Your task to perform on an android device: toggle airplane mode Image 0: 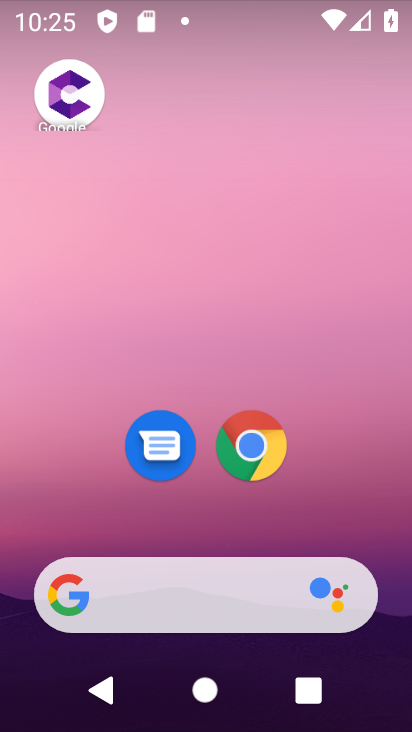
Step 0: drag from (210, 549) to (236, 222)
Your task to perform on an android device: toggle airplane mode Image 1: 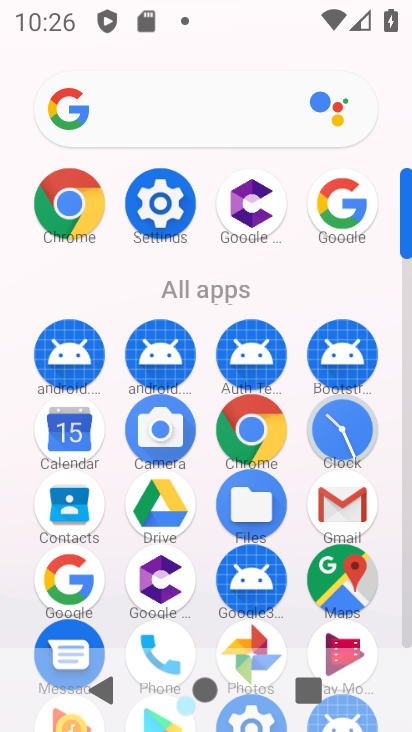
Step 1: click (162, 201)
Your task to perform on an android device: toggle airplane mode Image 2: 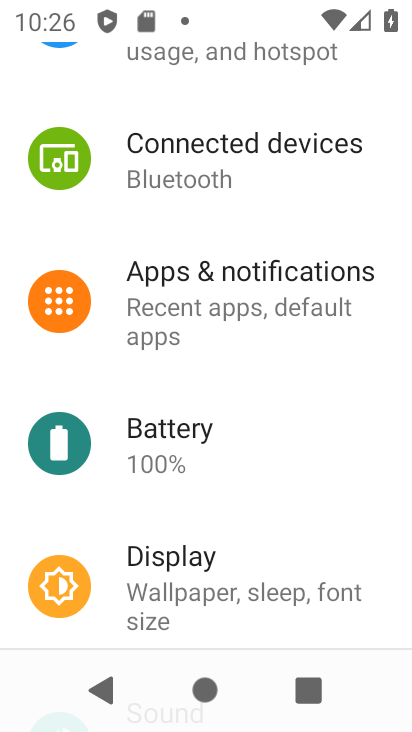
Step 2: drag from (240, 225) to (224, 565)
Your task to perform on an android device: toggle airplane mode Image 3: 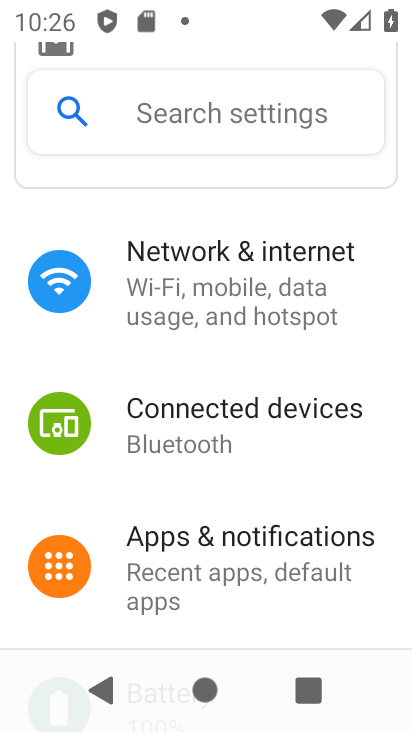
Step 3: click (251, 299)
Your task to perform on an android device: toggle airplane mode Image 4: 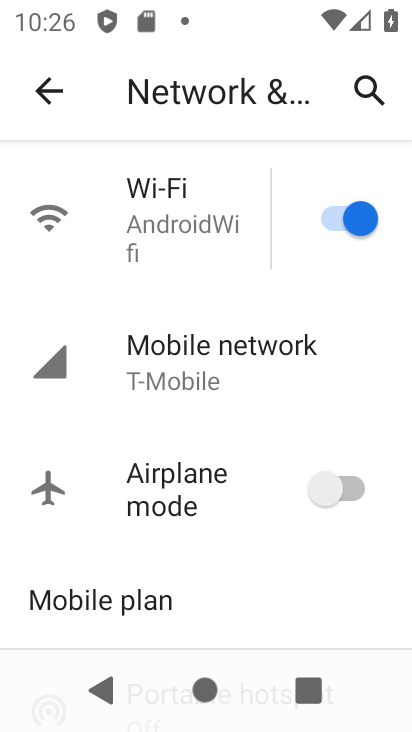
Step 4: click (344, 482)
Your task to perform on an android device: toggle airplane mode Image 5: 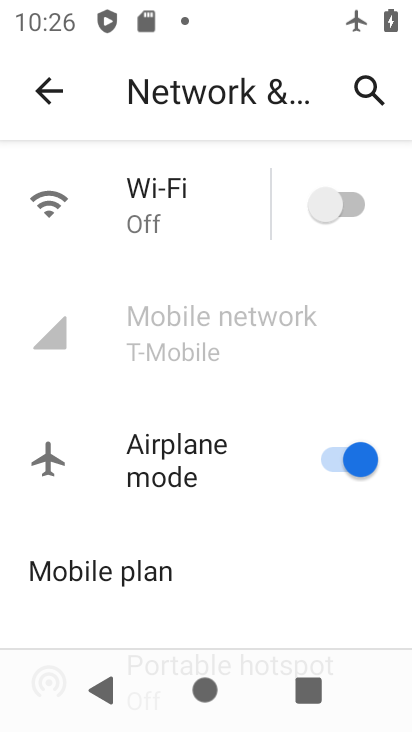
Step 5: task complete